Your task to perform on an android device: toggle airplane mode Image 0: 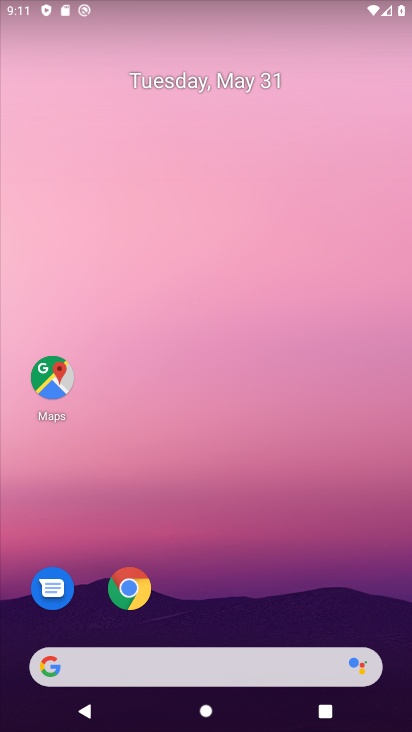
Step 0: drag from (230, 591) to (230, 0)
Your task to perform on an android device: toggle airplane mode Image 1: 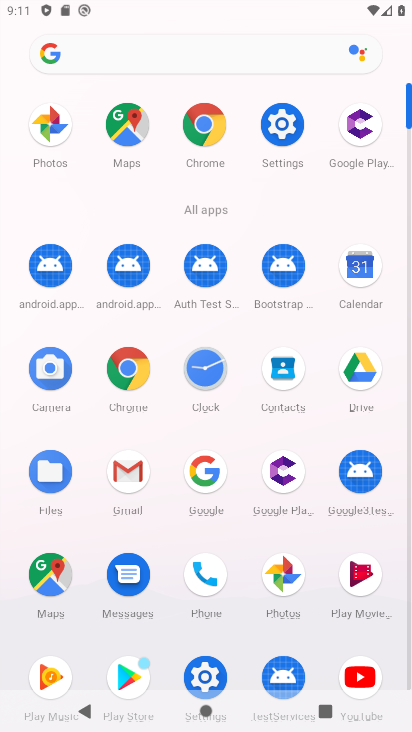
Step 1: click (277, 130)
Your task to perform on an android device: toggle airplane mode Image 2: 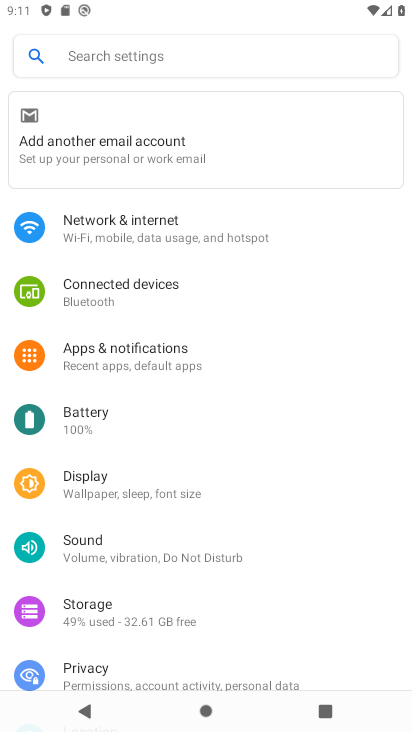
Step 2: click (177, 239)
Your task to perform on an android device: toggle airplane mode Image 3: 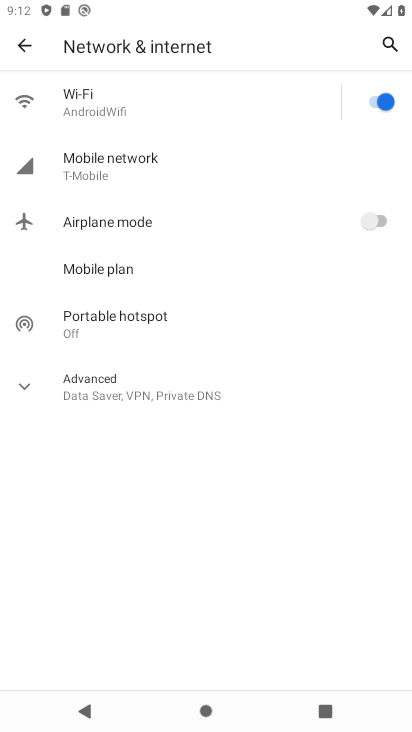
Step 3: click (367, 222)
Your task to perform on an android device: toggle airplane mode Image 4: 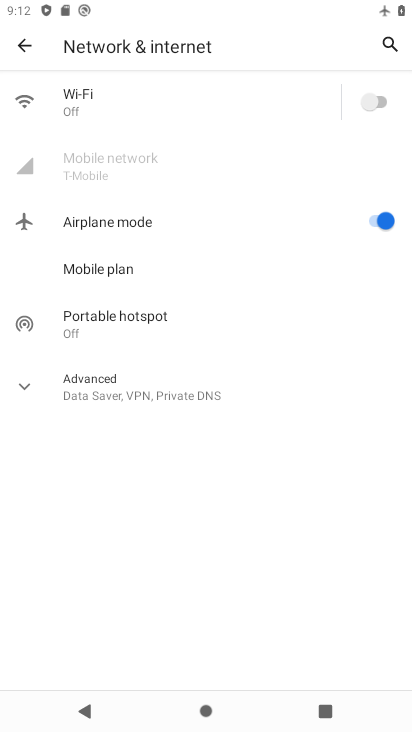
Step 4: task complete